Your task to perform on an android device: read, delete, or share a saved page in the chrome app Image 0: 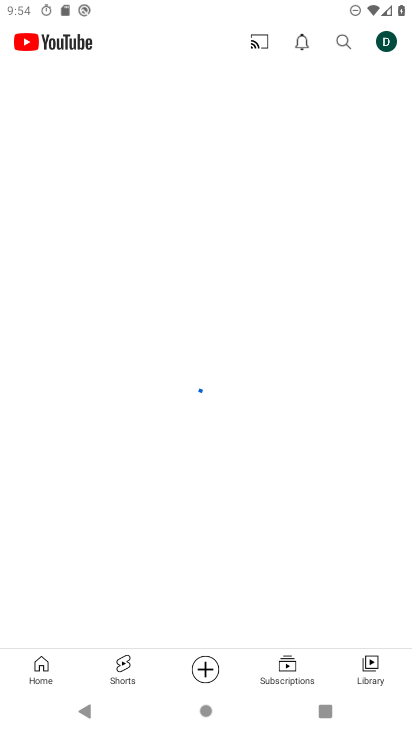
Step 0: drag from (398, 670) to (384, 376)
Your task to perform on an android device: read, delete, or share a saved page in the chrome app Image 1: 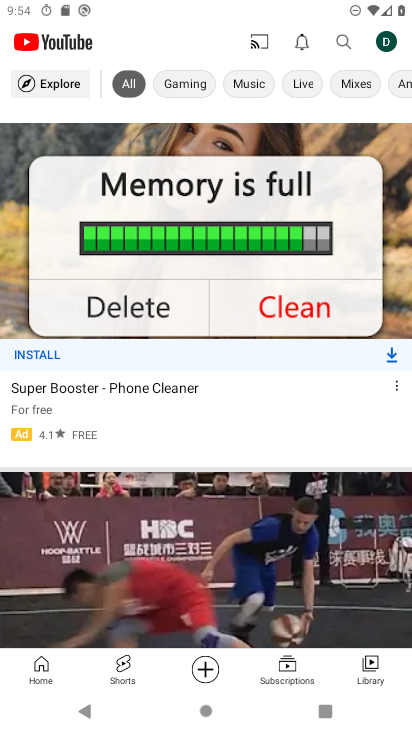
Step 1: press home button
Your task to perform on an android device: read, delete, or share a saved page in the chrome app Image 2: 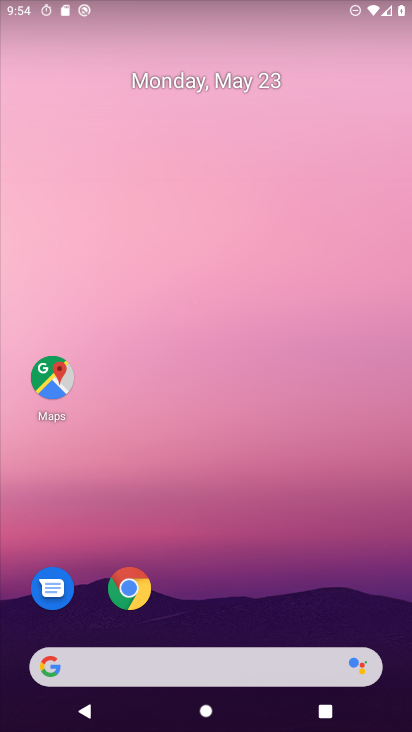
Step 2: drag from (397, 622) to (363, 216)
Your task to perform on an android device: read, delete, or share a saved page in the chrome app Image 3: 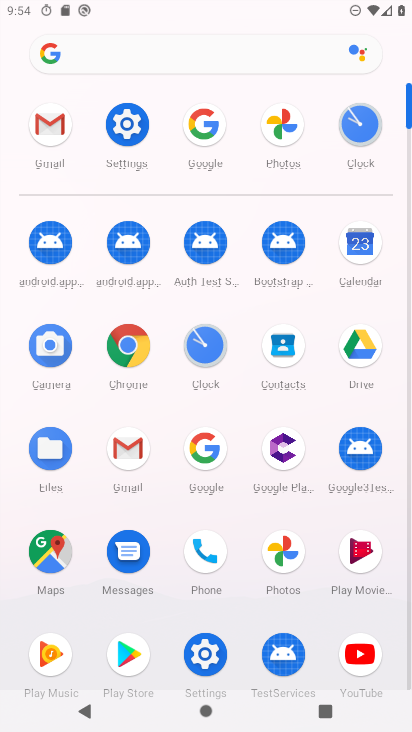
Step 3: click (116, 344)
Your task to perform on an android device: read, delete, or share a saved page in the chrome app Image 4: 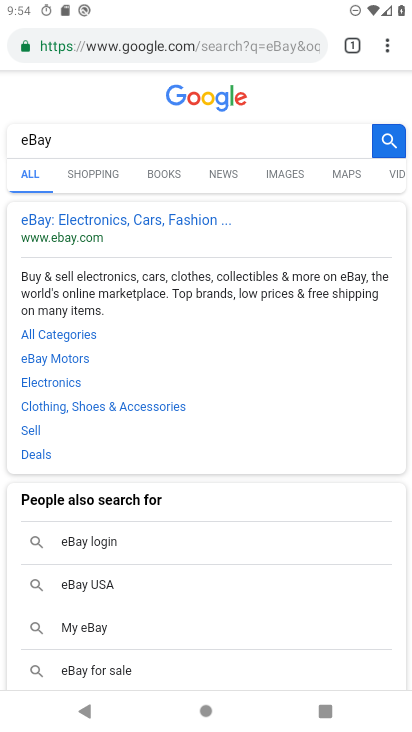
Step 4: click (389, 38)
Your task to perform on an android device: read, delete, or share a saved page in the chrome app Image 5: 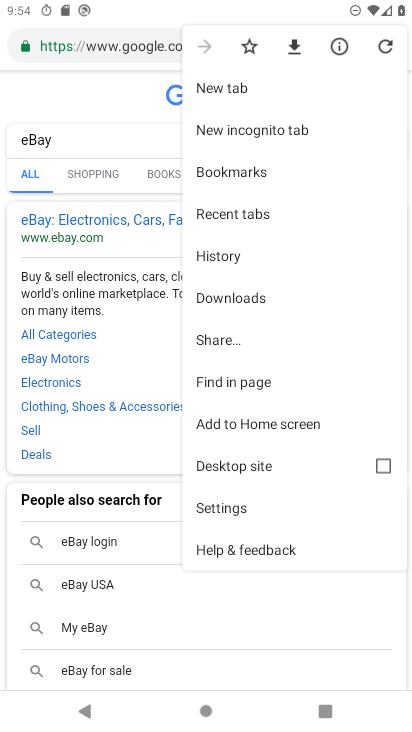
Step 5: click (225, 300)
Your task to perform on an android device: read, delete, or share a saved page in the chrome app Image 6: 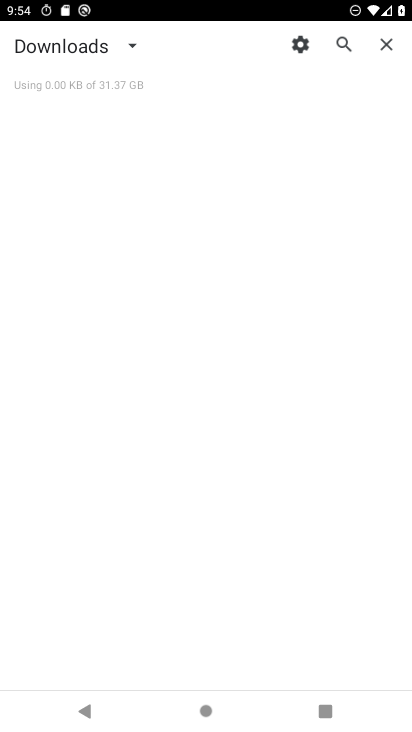
Step 6: task complete